Your task to perform on an android device: Open Google Image 0: 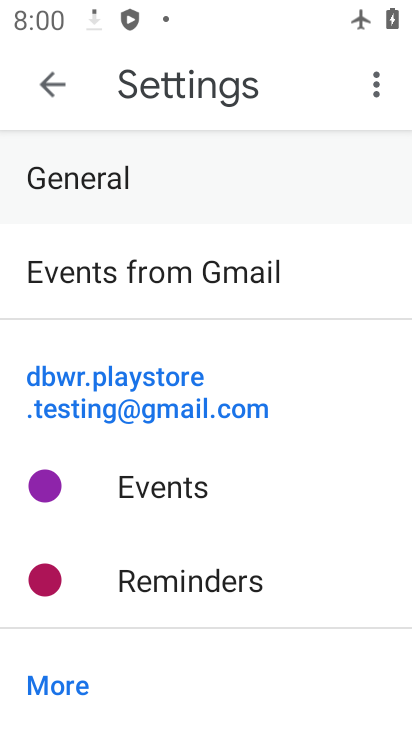
Step 0: press home button
Your task to perform on an android device: Open Google Image 1: 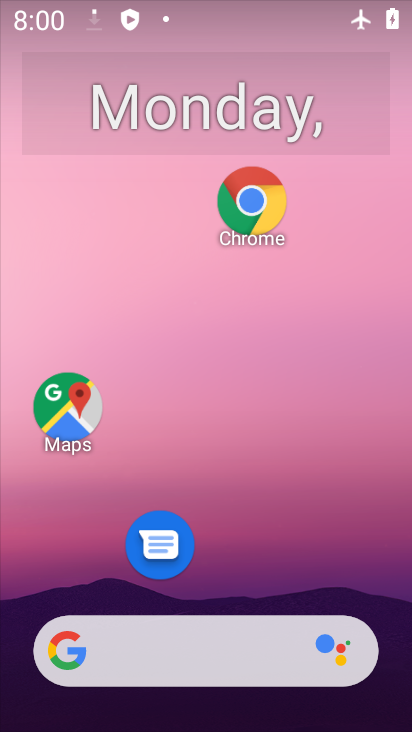
Step 1: drag from (242, 473) to (240, 176)
Your task to perform on an android device: Open Google Image 2: 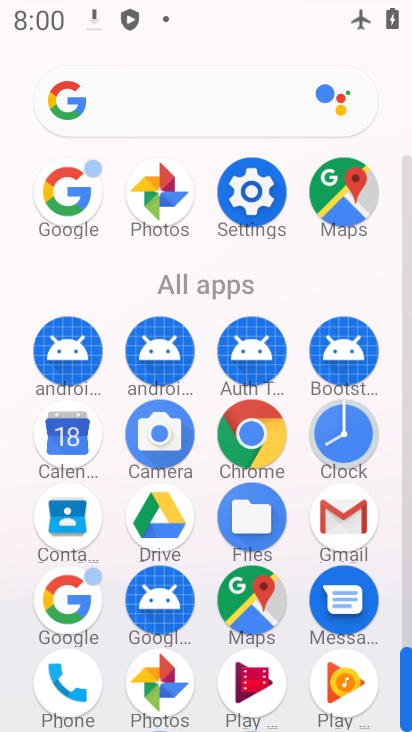
Step 2: click (88, 188)
Your task to perform on an android device: Open Google Image 3: 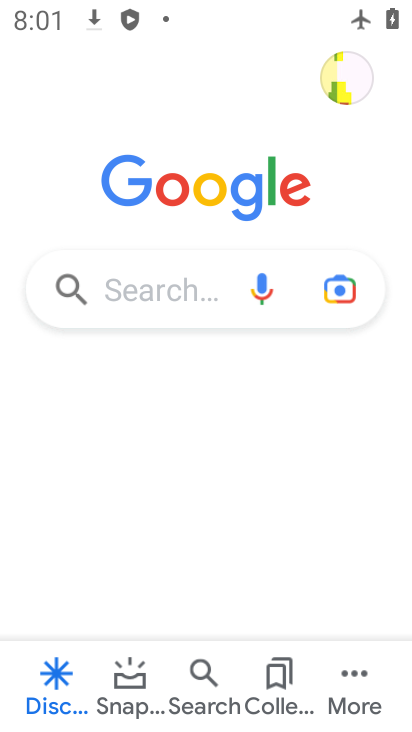
Step 3: task complete